Your task to perform on an android device: turn notification dots off Image 0: 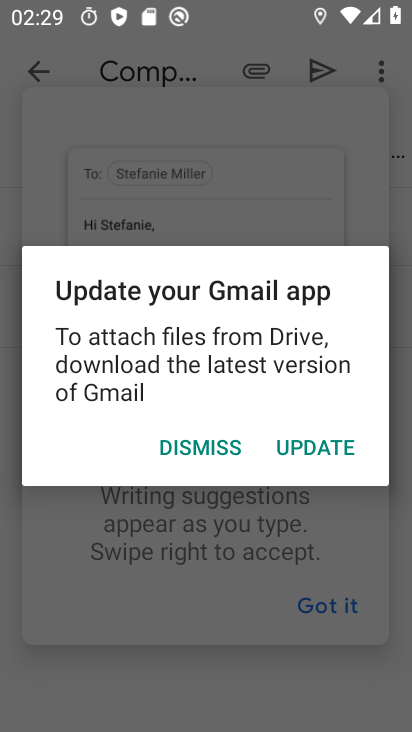
Step 0: press home button
Your task to perform on an android device: turn notification dots off Image 1: 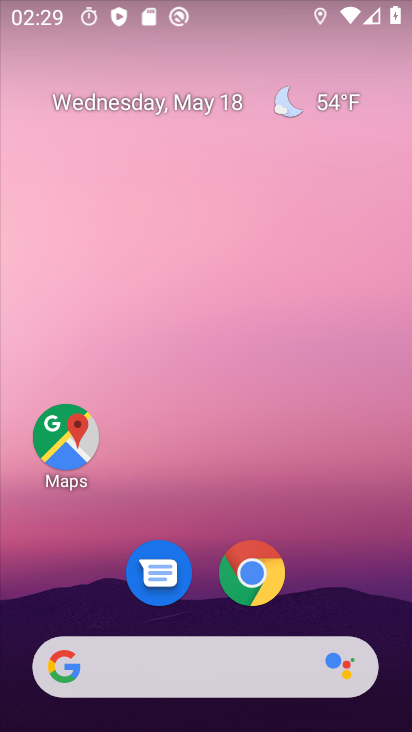
Step 1: drag from (209, 607) to (214, 228)
Your task to perform on an android device: turn notification dots off Image 2: 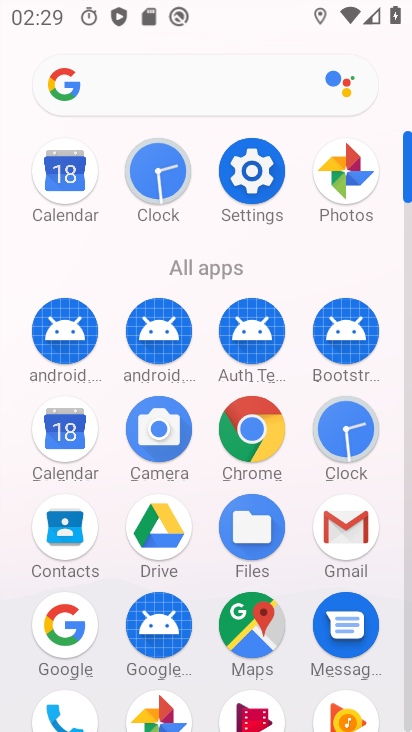
Step 2: click (270, 186)
Your task to perform on an android device: turn notification dots off Image 3: 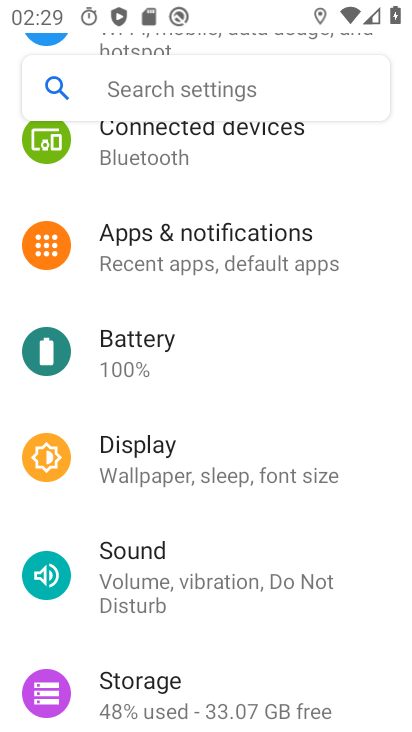
Step 3: click (244, 238)
Your task to perform on an android device: turn notification dots off Image 4: 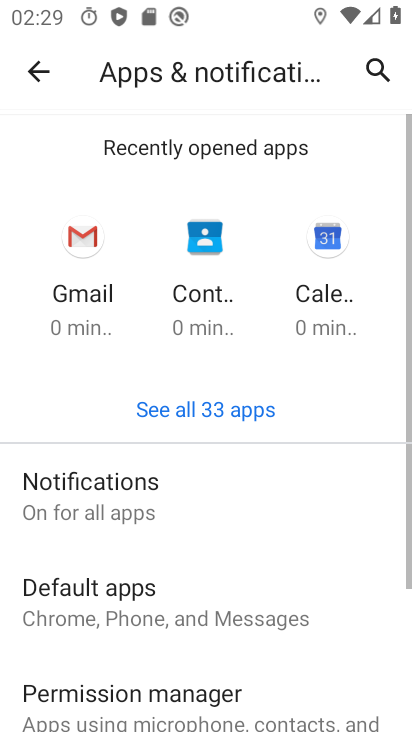
Step 4: click (183, 481)
Your task to perform on an android device: turn notification dots off Image 5: 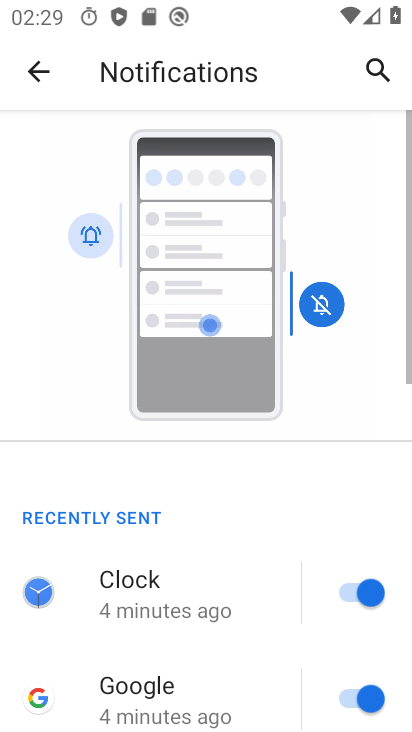
Step 5: drag from (192, 605) to (230, 295)
Your task to perform on an android device: turn notification dots off Image 6: 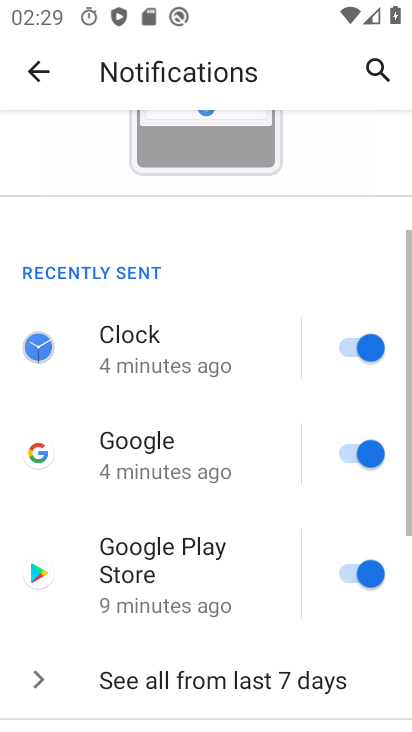
Step 6: drag from (203, 543) to (236, 296)
Your task to perform on an android device: turn notification dots off Image 7: 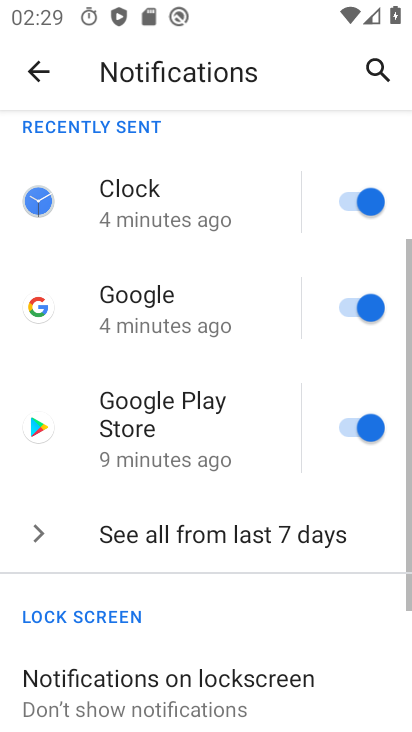
Step 7: drag from (209, 582) to (230, 311)
Your task to perform on an android device: turn notification dots off Image 8: 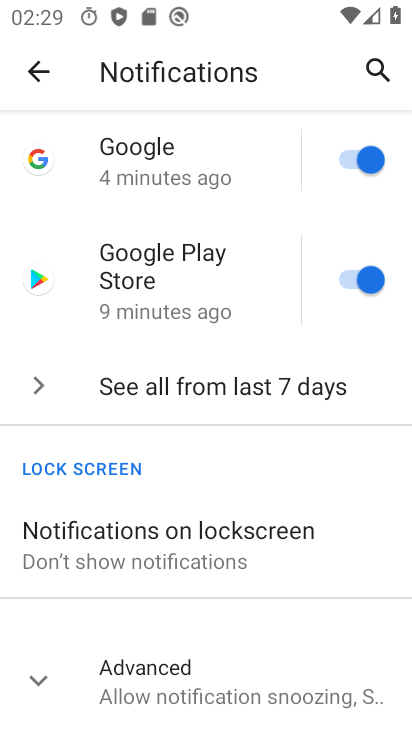
Step 8: click (227, 642)
Your task to perform on an android device: turn notification dots off Image 9: 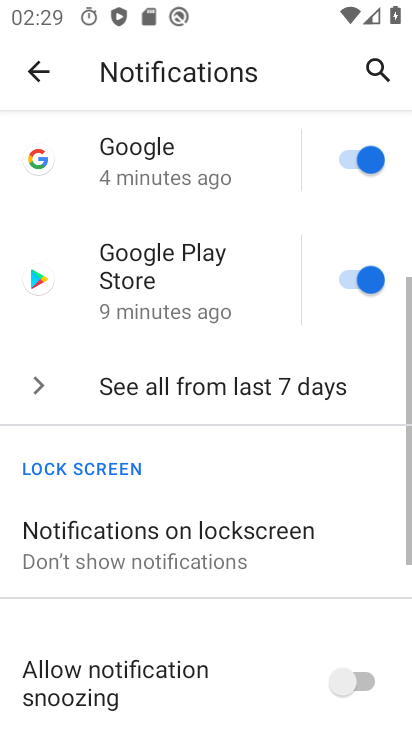
Step 9: task complete